Your task to perform on an android device: What is the news today? Image 0: 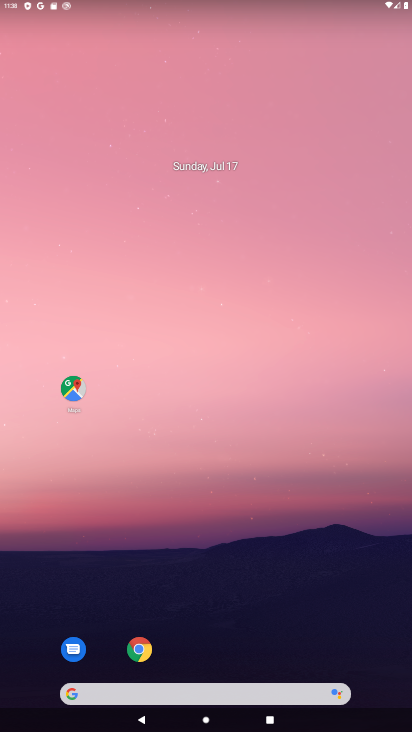
Step 0: click (211, 692)
Your task to perform on an android device: What is the news today? Image 1: 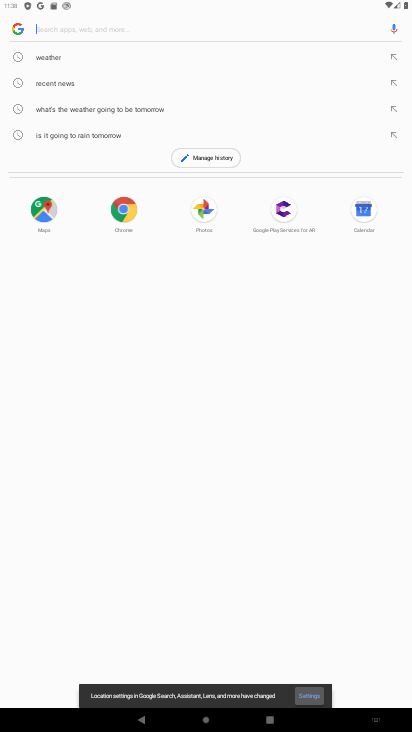
Step 1: task complete